Your task to perform on an android device: Do I have any events tomorrow? Image 0: 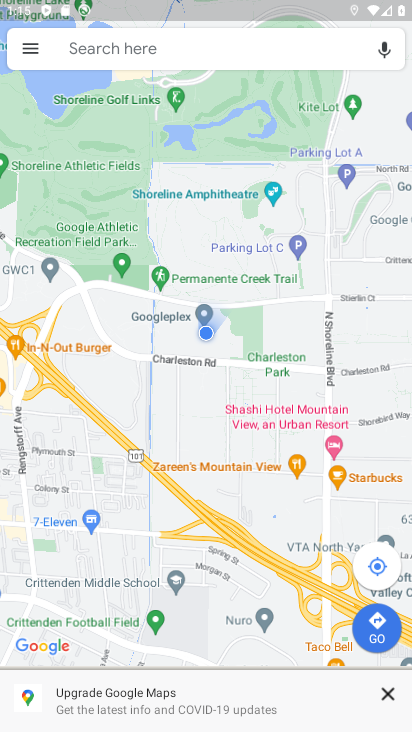
Step 0: press home button
Your task to perform on an android device: Do I have any events tomorrow? Image 1: 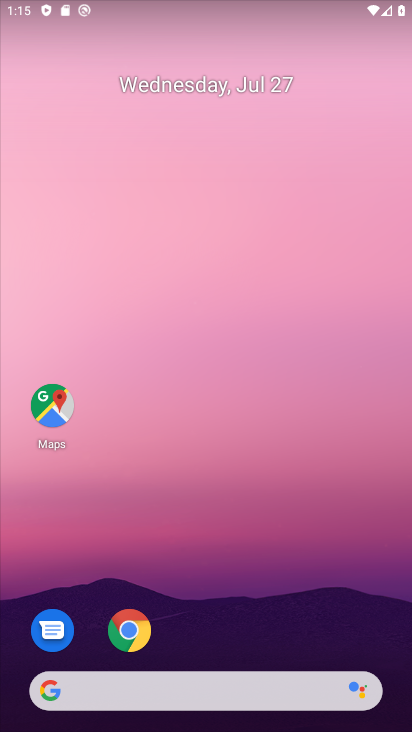
Step 1: drag from (230, 680) to (157, 114)
Your task to perform on an android device: Do I have any events tomorrow? Image 2: 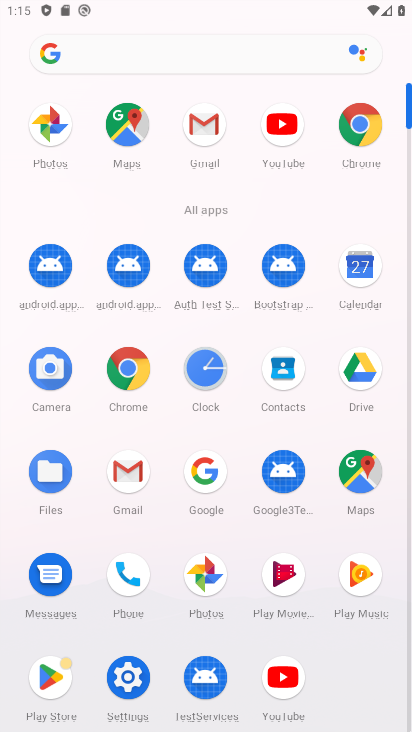
Step 2: click (369, 273)
Your task to perform on an android device: Do I have any events tomorrow? Image 3: 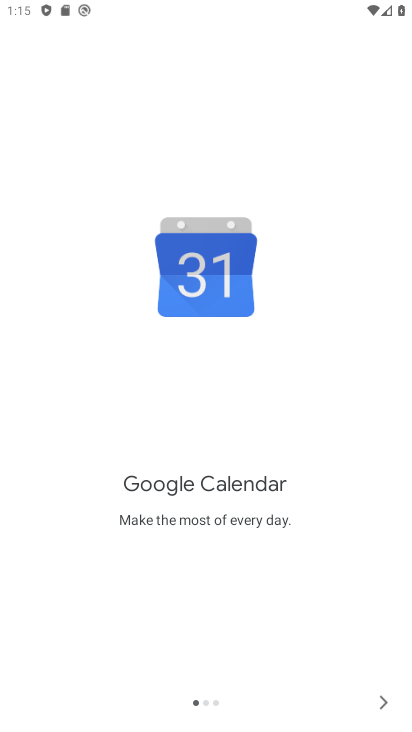
Step 3: click (390, 695)
Your task to perform on an android device: Do I have any events tomorrow? Image 4: 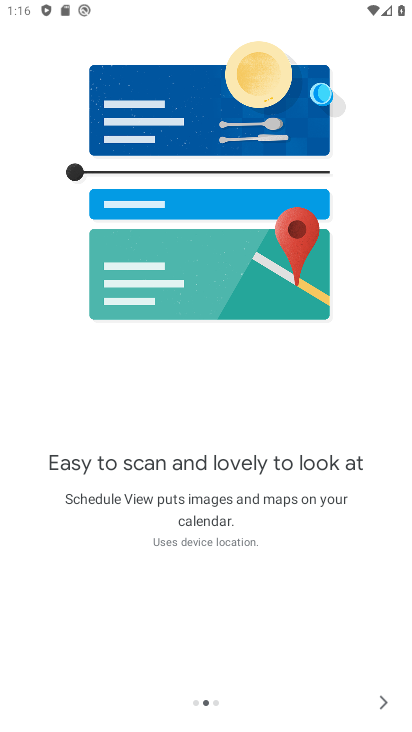
Step 4: click (380, 702)
Your task to perform on an android device: Do I have any events tomorrow? Image 5: 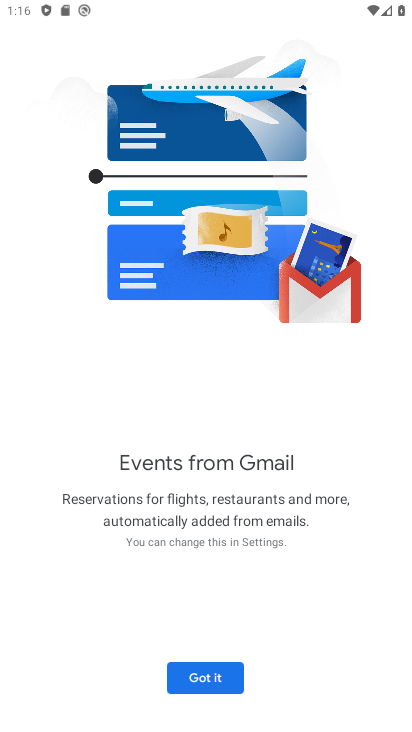
Step 5: click (218, 684)
Your task to perform on an android device: Do I have any events tomorrow? Image 6: 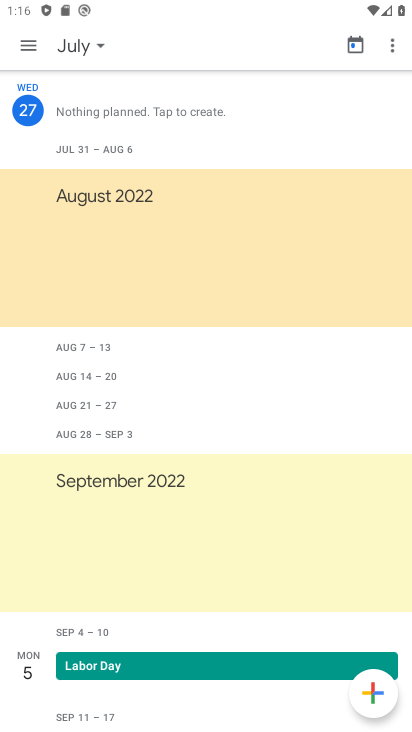
Step 6: click (28, 48)
Your task to perform on an android device: Do I have any events tomorrow? Image 7: 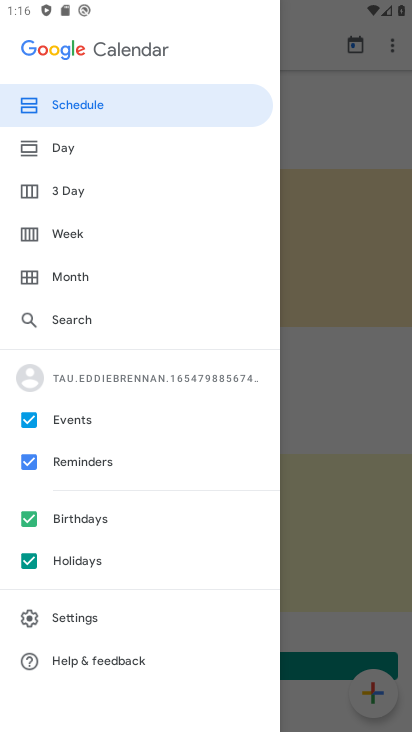
Step 7: click (86, 114)
Your task to perform on an android device: Do I have any events tomorrow? Image 8: 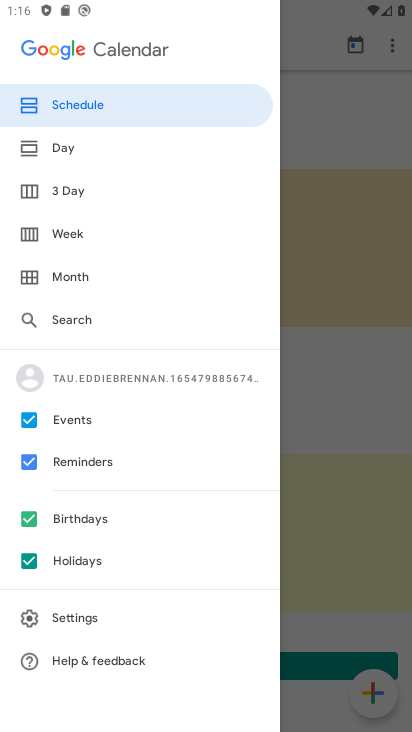
Step 8: click (118, 114)
Your task to perform on an android device: Do I have any events tomorrow? Image 9: 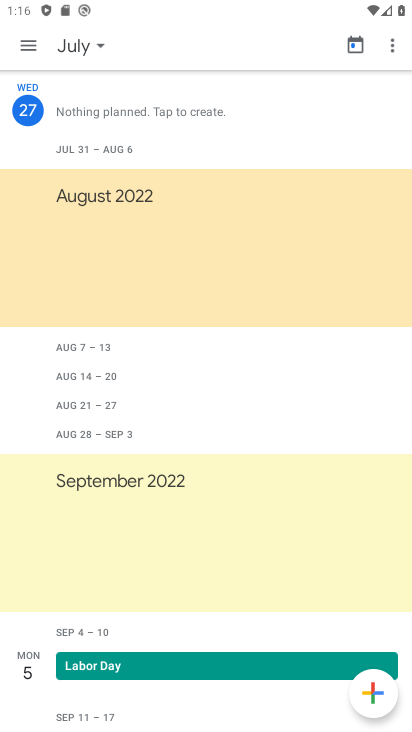
Step 9: task complete